Your task to perform on an android device: turn on priority inbox in the gmail app Image 0: 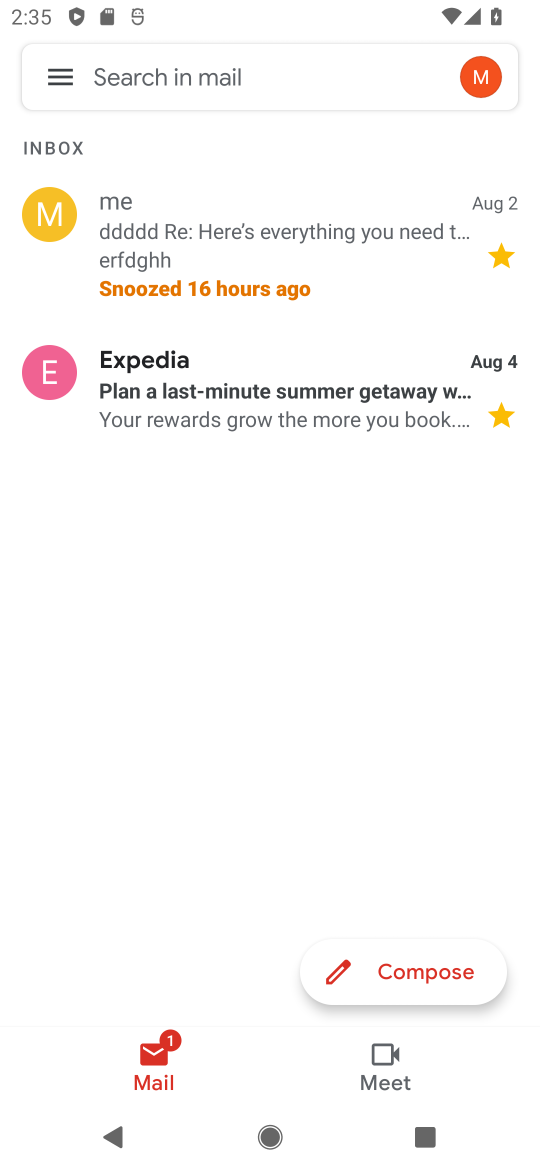
Step 0: press home button
Your task to perform on an android device: turn on priority inbox in the gmail app Image 1: 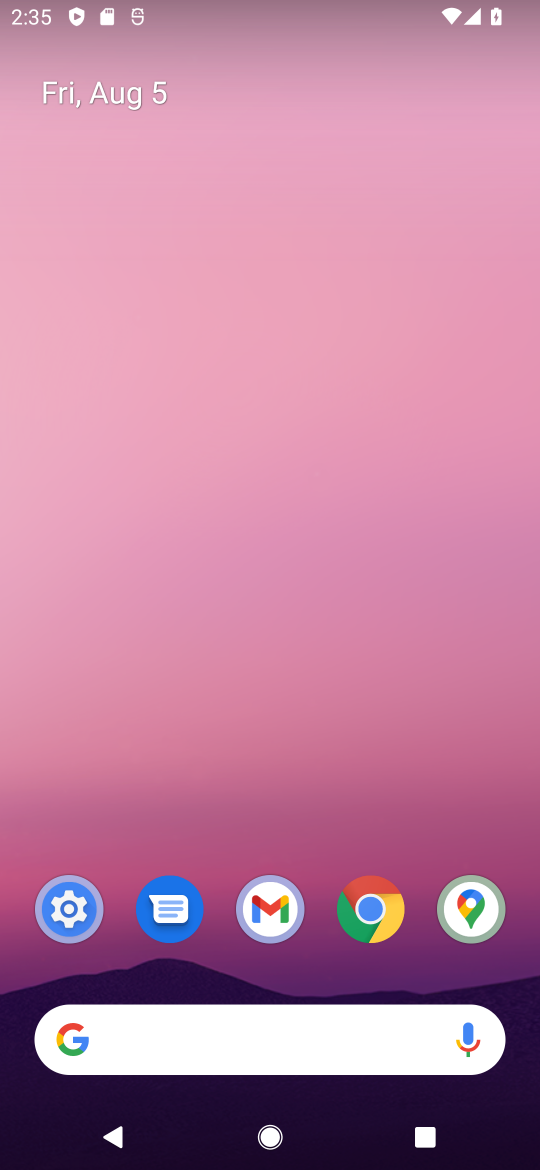
Step 1: click (276, 944)
Your task to perform on an android device: turn on priority inbox in the gmail app Image 2: 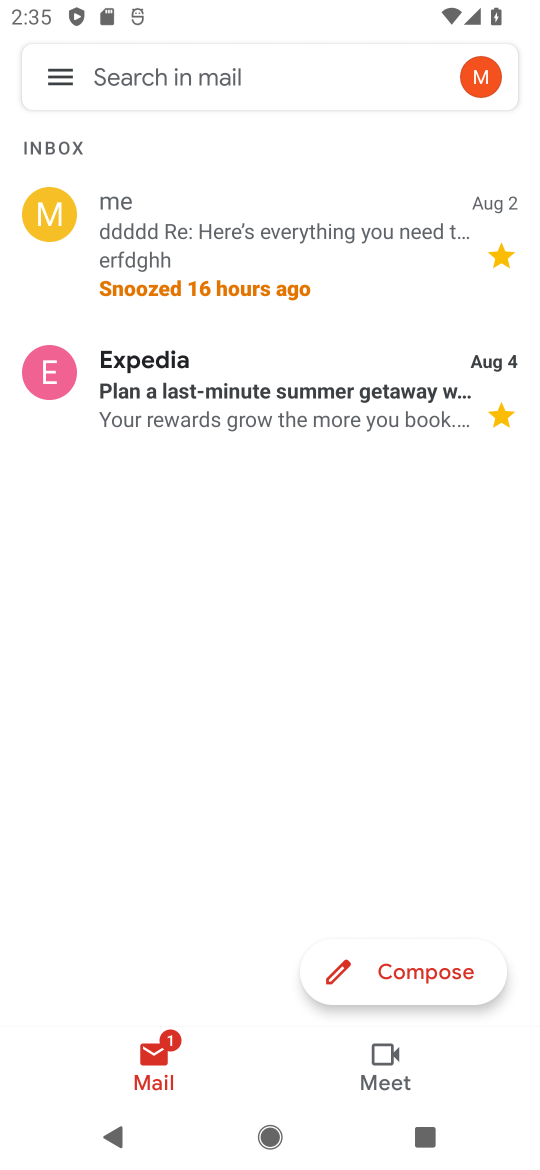
Step 2: click (53, 64)
Your task to perform on an android device: turn on priority inbox in the gmail app Image 3: 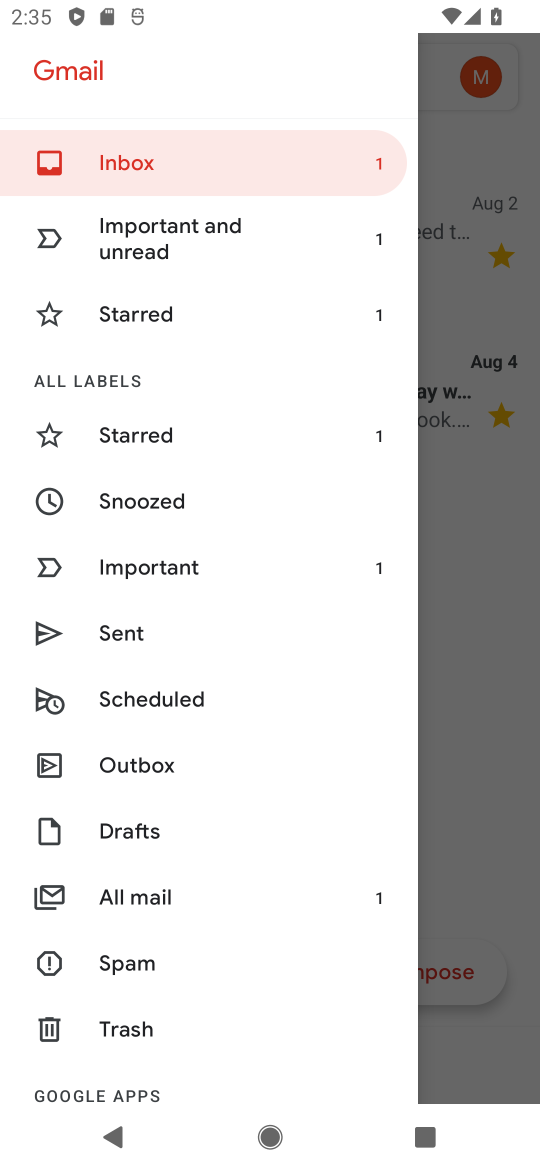
Step 3: drag from (190, 1034) to (188, 877)
Your task to perform on an android device: turn on priority inbox in the gmail app Image 4: 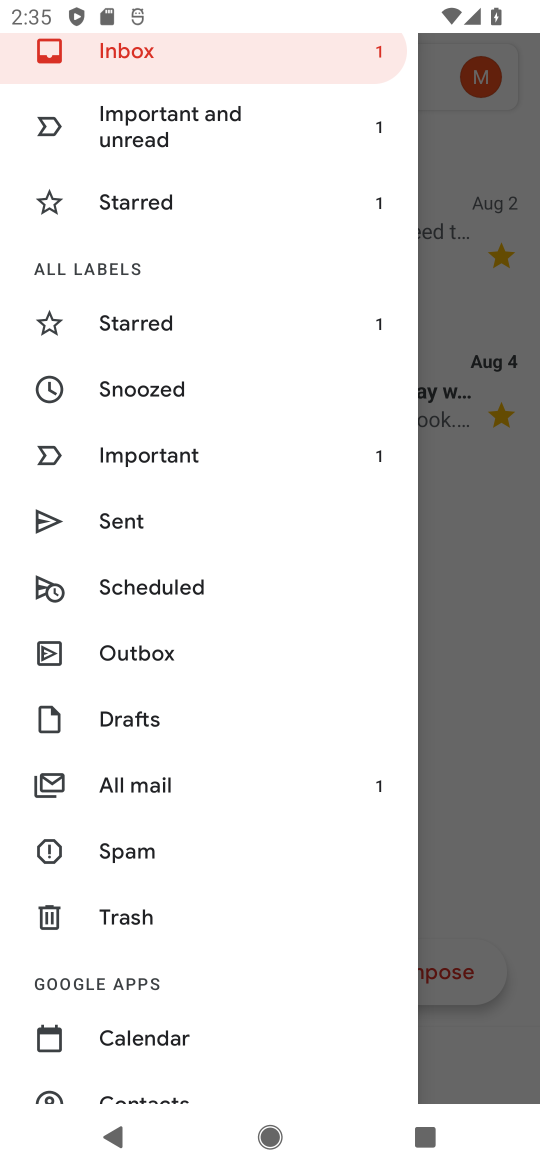
Step 4: drag from (180, 1075) to (176, 412)
Your task to perform on an android device: turn on priority inbox in the gmail app Image 5: 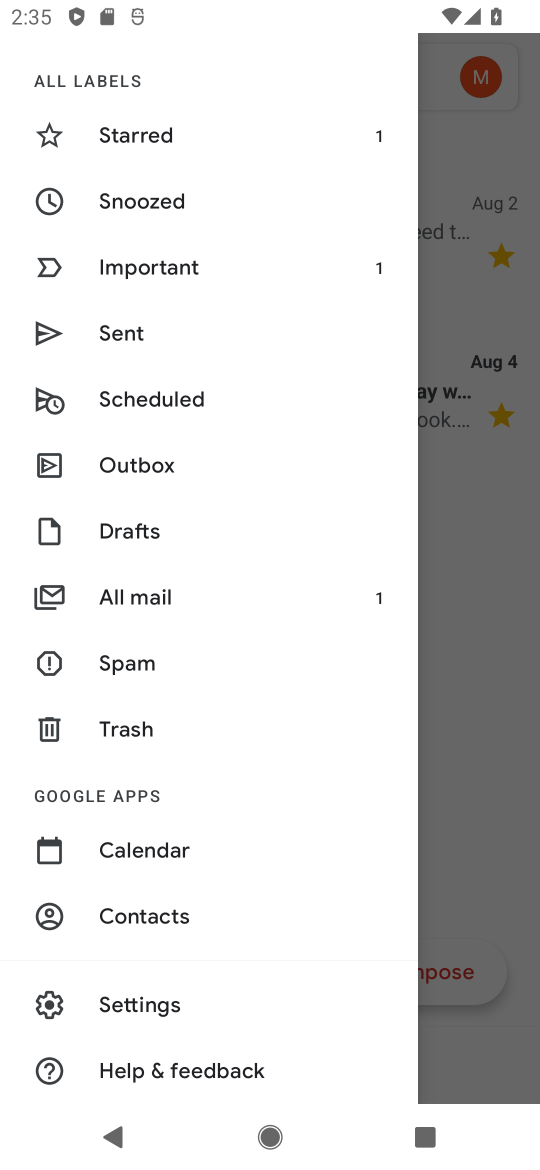
Step 5: click (170, 982)
Your task to perform on an android device: turn on priority inbox in the gmail app Image 6: 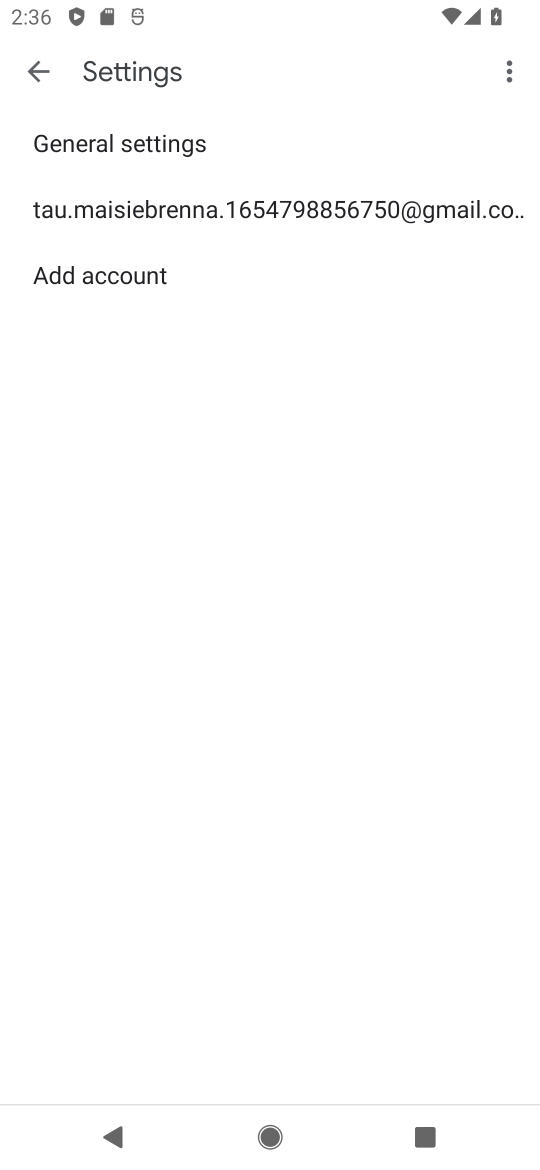
Step 6: click (149, 192)
Your task to perform on an android device: turn on priority inbox in the gmail app Image 7: 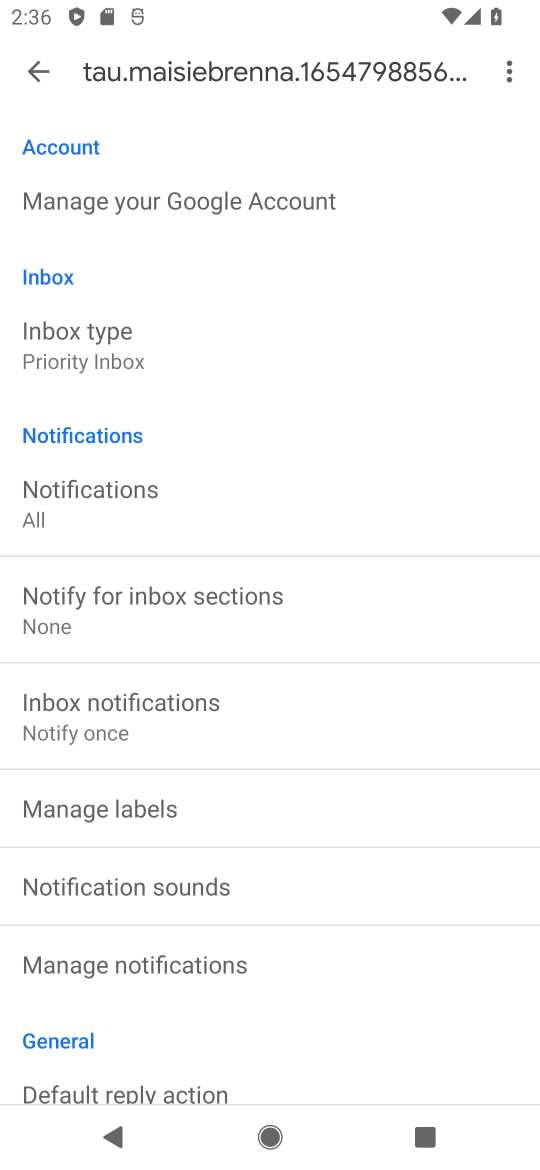
Step 7: task complete